Your task to perform on an android device: Go to internet settings Image 0: 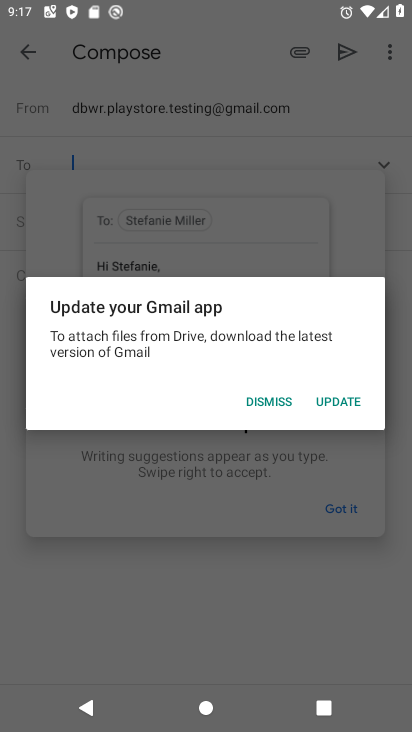
Step 0: press home button
Your task to perform on an android device: Go to internet settings Image 1: 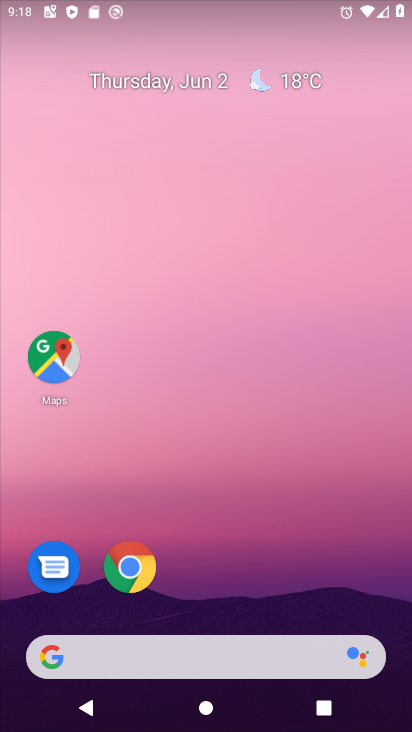
Step 1: drag from (194, 560) to (280, 246)
Your task to perform on an android device: Go to internet settings Image 2: 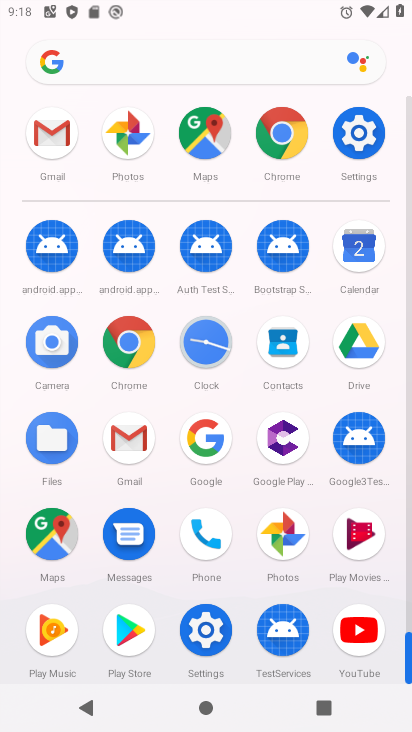
Step 2: click (374, 154)
Your task to perform on an android device: Go to internet settings Image 3: 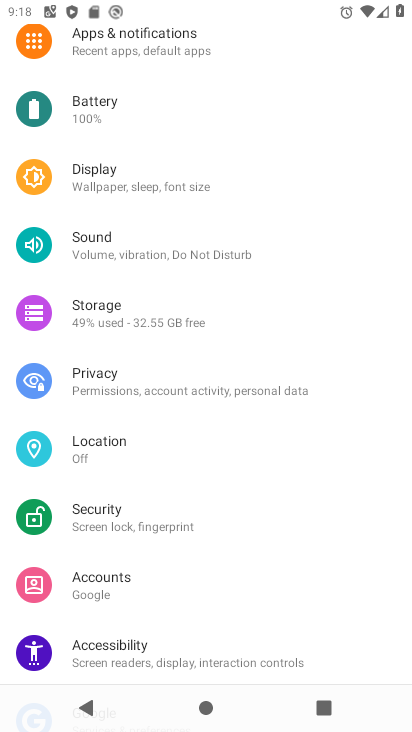
Step 3: drag from (172, 197) to (151, 499)
Your task to perform on an android device: Go to internet settings Image 4: 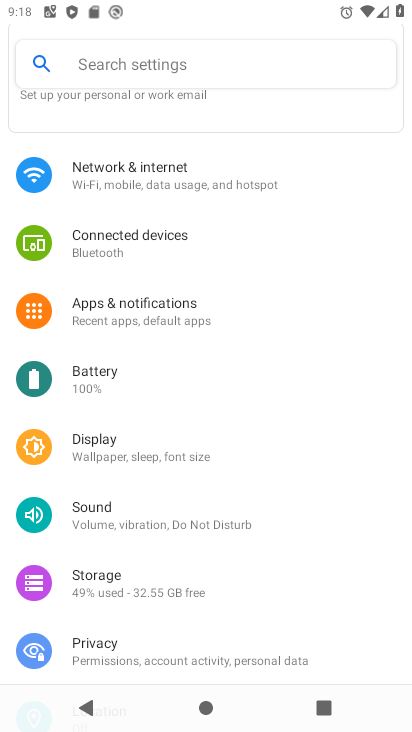
Step 4: click (121, 175)
Your task to perform on an android device: Go to internet settings Image 5: 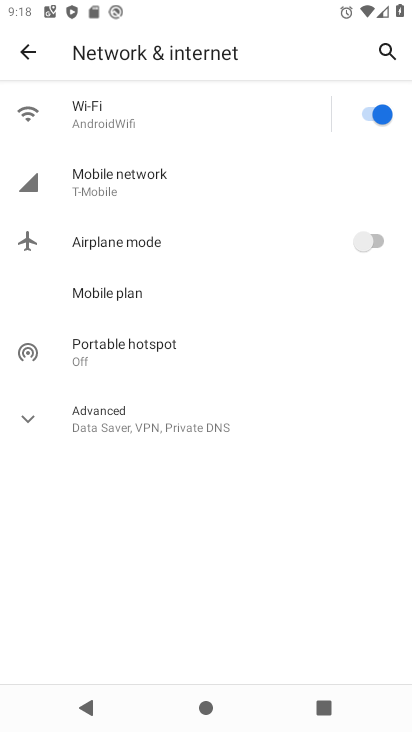
Step 5: task complete